Your task to perform on an android device: turn on javascript in the chrome app Image 0: 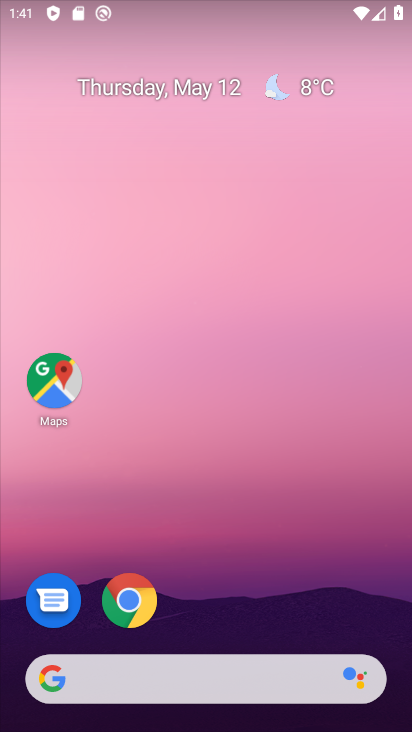
Step 0: click (132, 609)
Your task to perform on an android device: turn on javascript in the chrome app Image 1: 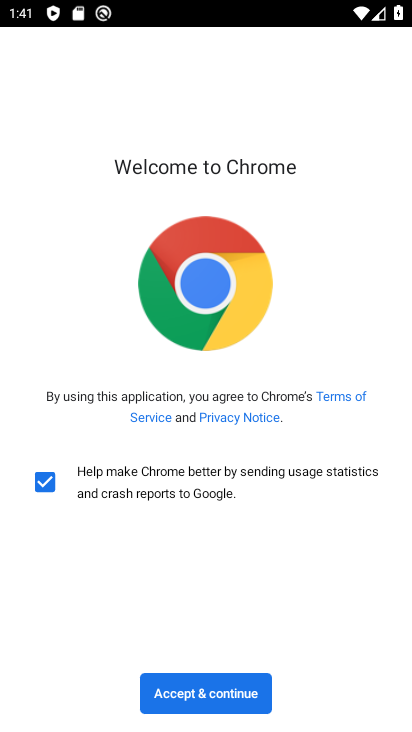
Step 1: click (233, 700)
Your task to perform on an android device: turn on javascript in the chrome app Image 2: 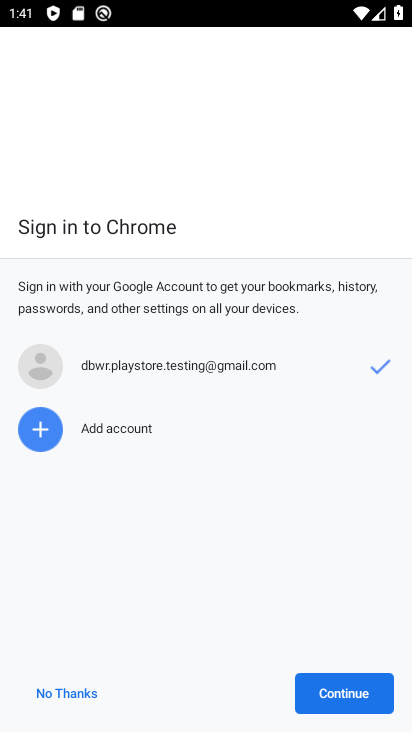
Step 2: click (316, 702)
Your task to perform on an android device: turn on javascript in the chrome app Image 3: 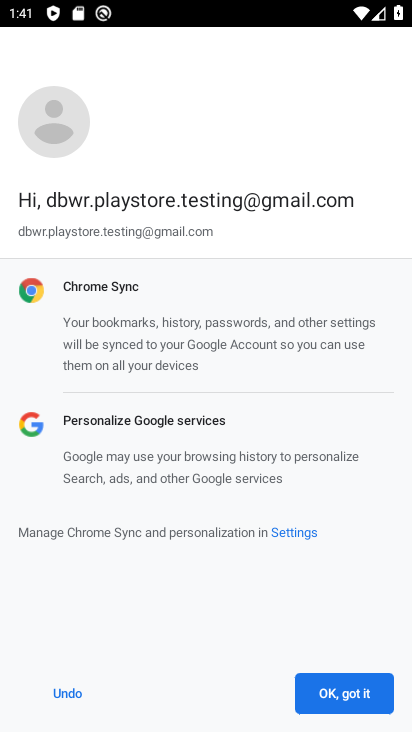
Step 3: click (316, 702)
Your task to perform on an android device: turn on javascript in the chrome app Image 4: 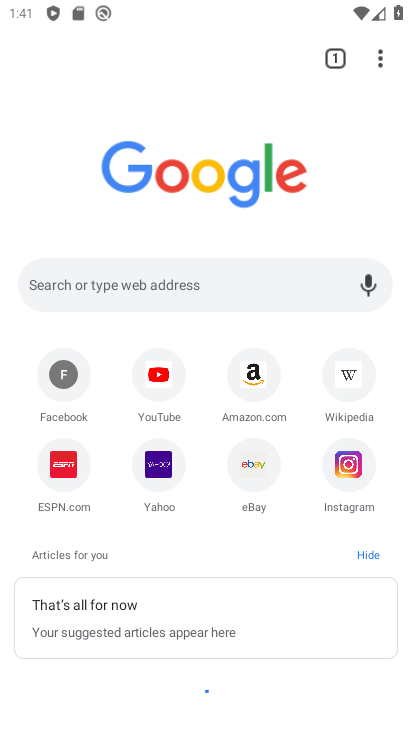
Step 4: click (379, 64)
Your task to perform on an android device: turn on javascript in the chrome app Image 5: 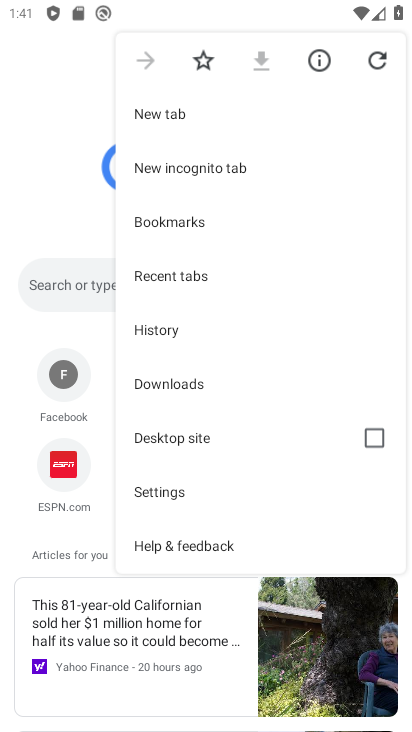
Step 5: click (177, 490)
Your task to perform on an android device: turn on javascript in the chrome app Image 6: 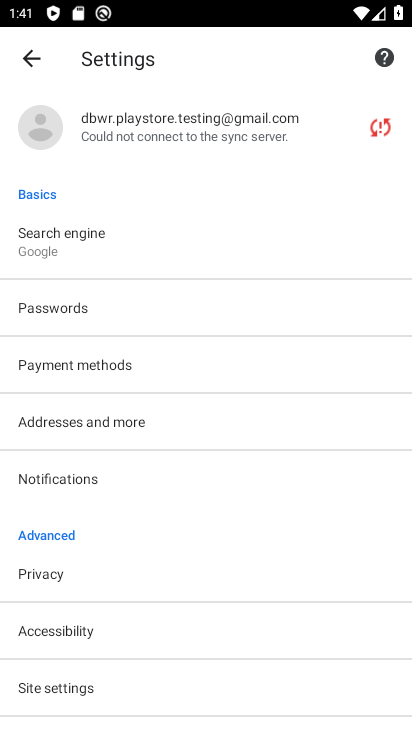
Step 6: click (117, 679)
Your task to perform on an android device: turn on javascript in the chrome app Image 7: 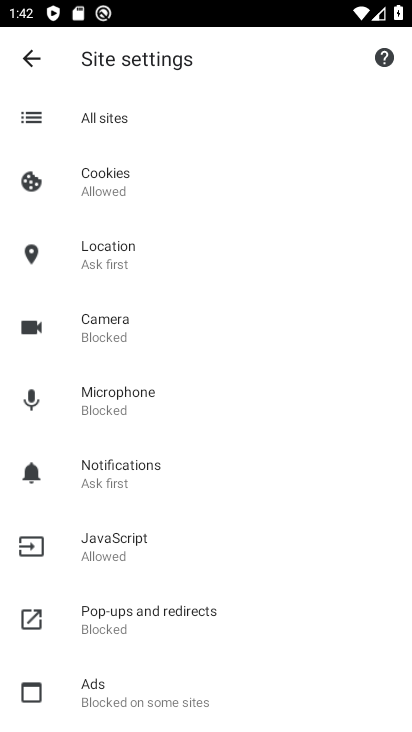
Step 7: click (139, 558)
Your task to perform on an android device: turn on javascript in the chrome app Image 8: 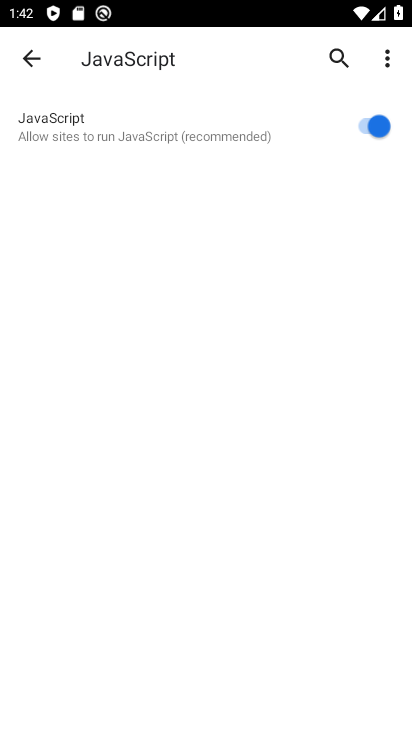
Step 8: task complete